Your task to perform on an android device: snooze an email in the gmail app Image 0: 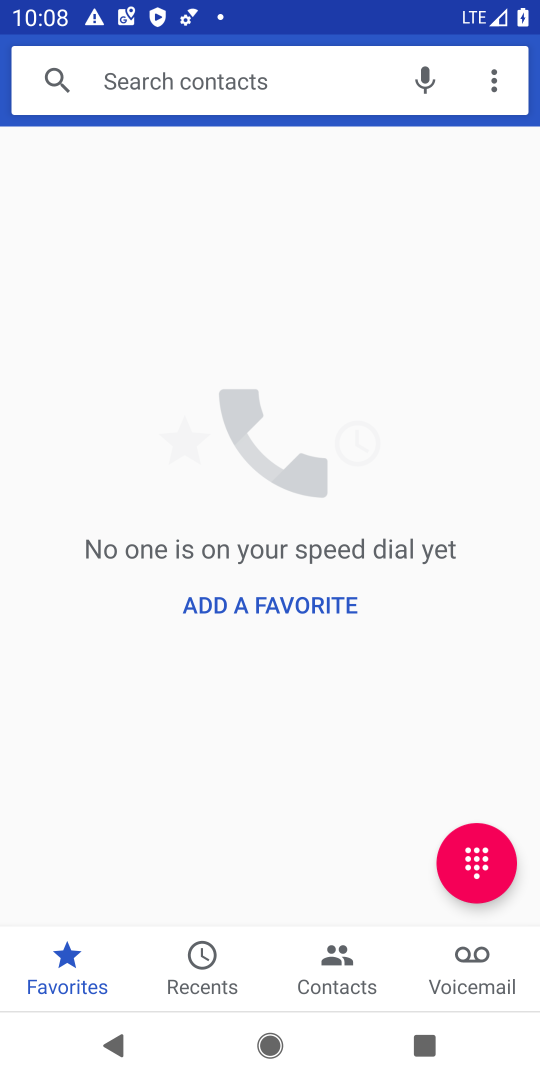
Step 0: press home button
Your task to perform on an android device: snooze an email in the gmail app Image 1: 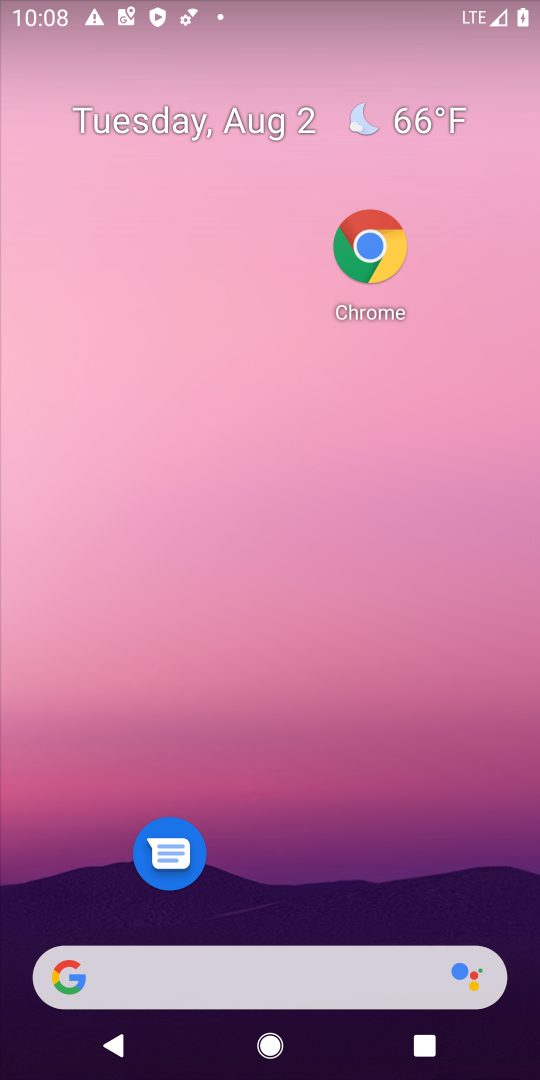
Step 1: drag from (337, 912) to (485, 512)
Your task to perform on an android device: snooze an email in the gmail app Image 2: 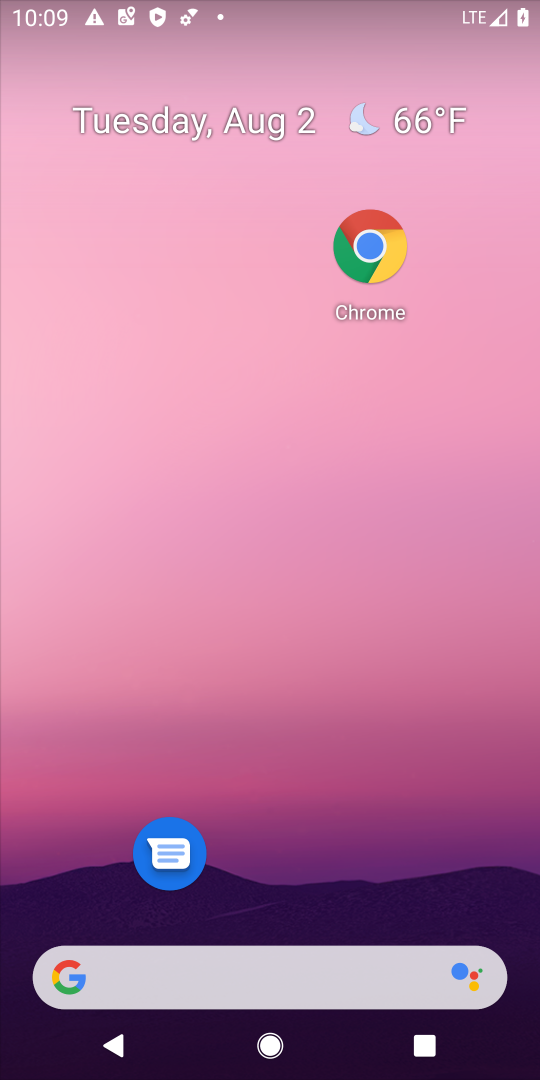
Step 2: drag from (228, 851) to (440, 49)
Your task to perform on an android device: snooze an email in the gmail app Image 3: 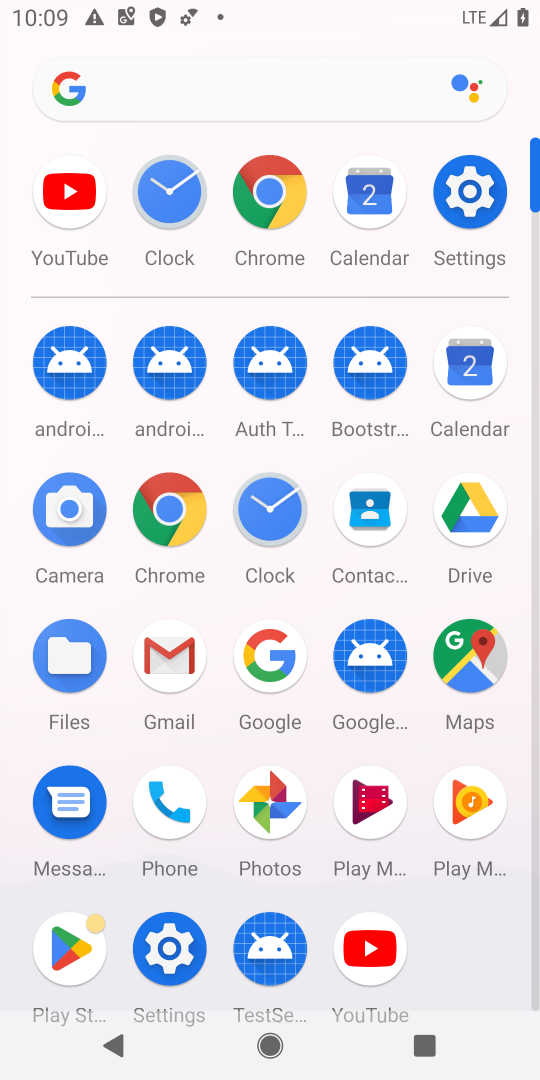
Step 3: click (167, 739)
Your task to perform on an android device: snooze an email in the gmail app Image 4: 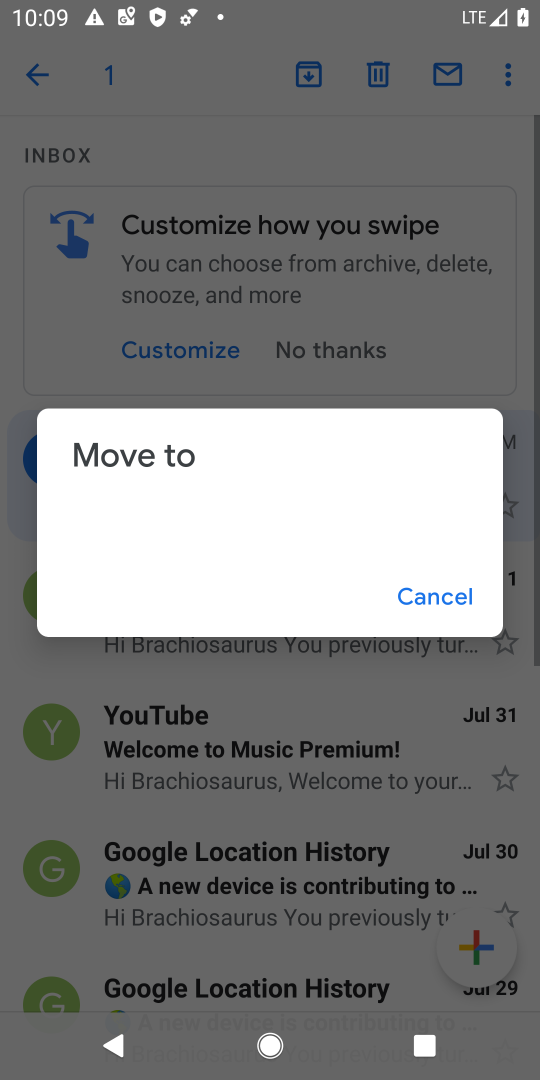
Step 4: click (439, 592)
Your task to perform on an android device: snooze an email in the gmail app Image 5: 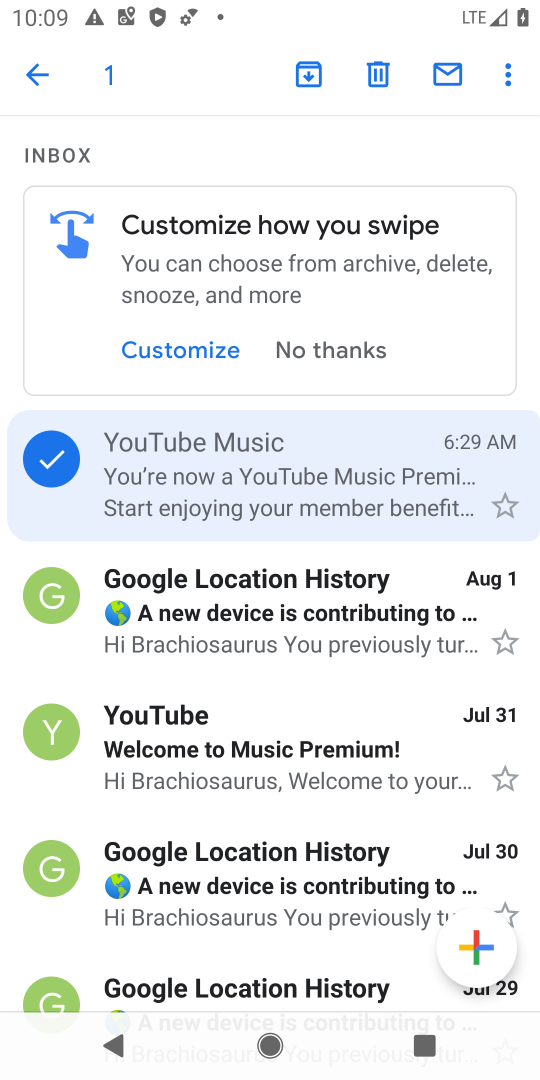
Step 5: click (28, 81)
Your task to perform on an android device: snooze an email in the gmail app Image 6: 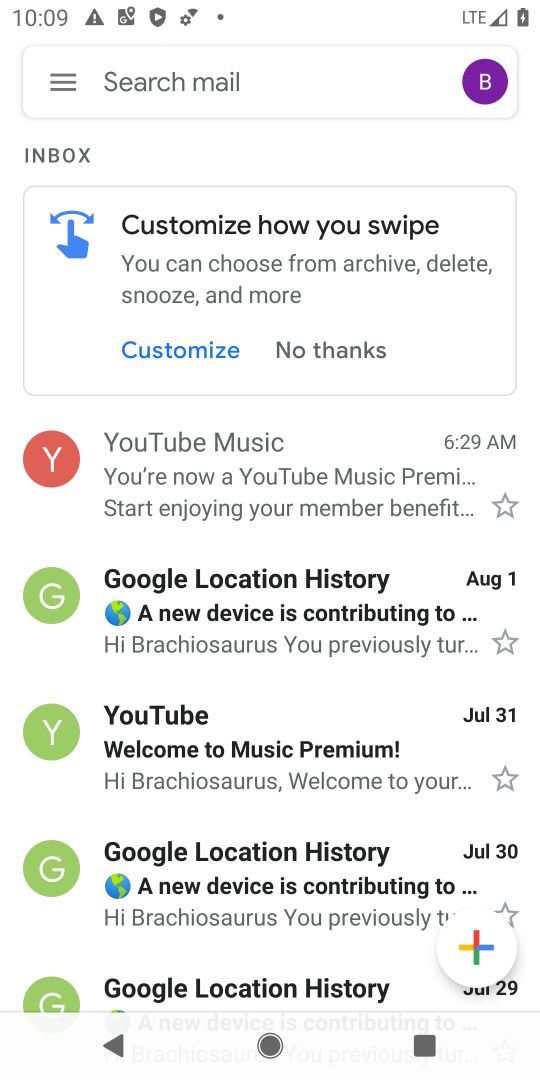
Step 6: click (228, 489)
Your task to perform on an android device: snooze an email in the gmail app Image 7: 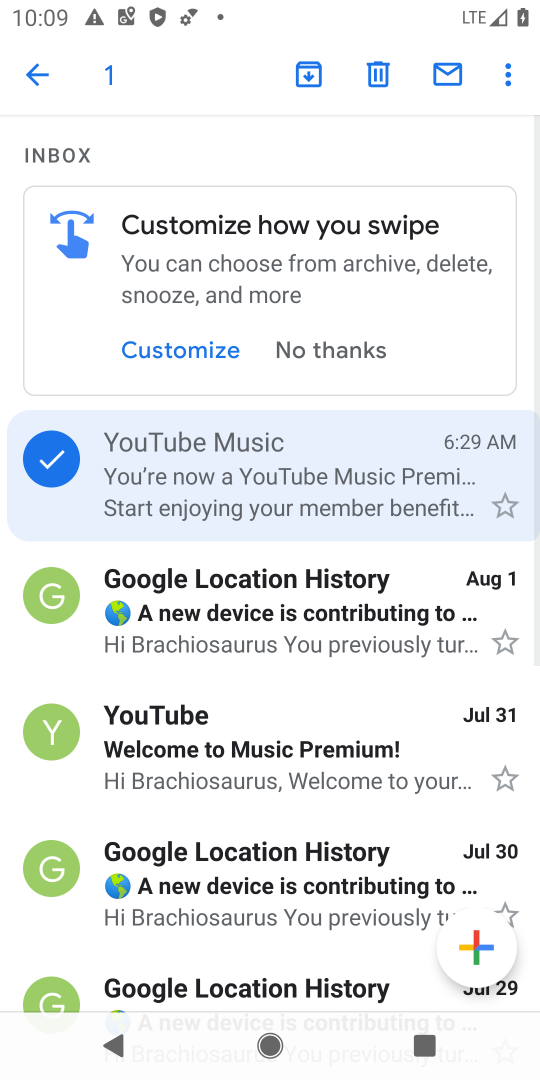
Step 7: click (507, 83)
Your task to perform on an android device: snooze an email in the gmail app Image 8: 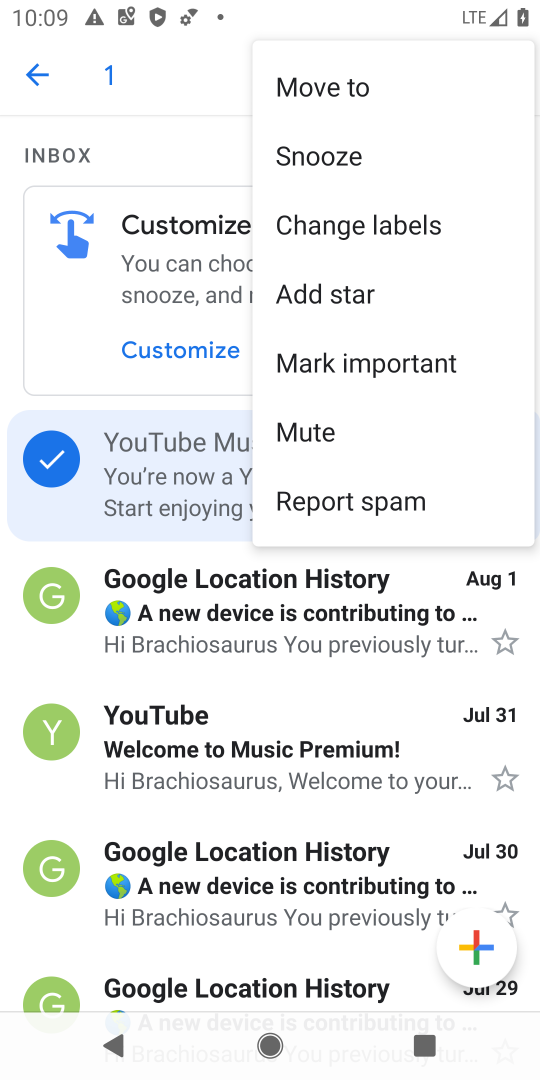
Step 8: click (342, 141)
Your task to perform on an android device: snooze an email in the gmail app Image 9: 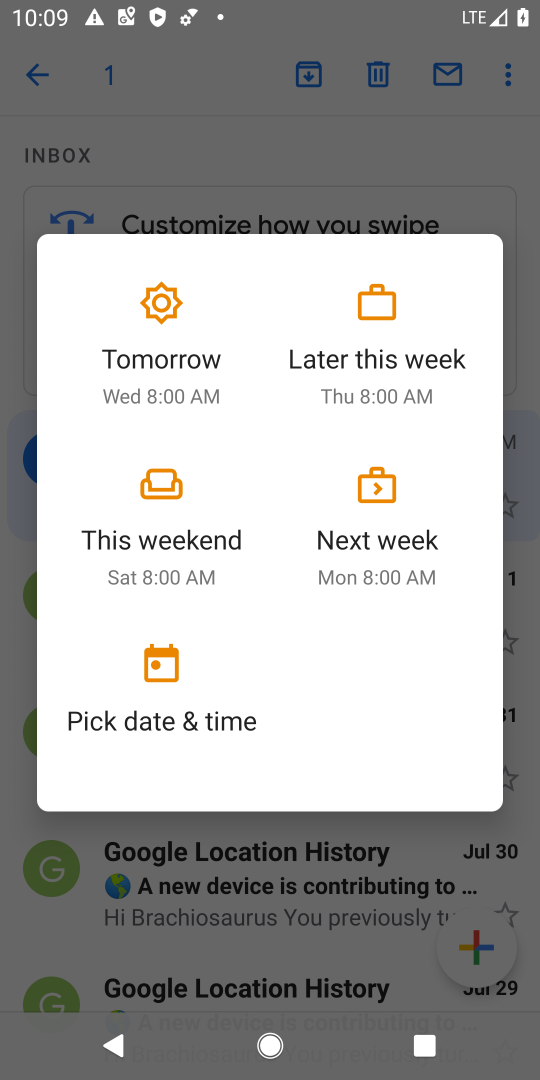
Step 9: click (388, 320)
Your task to perform on an android device: snooze an email in the gmail app Image 10: 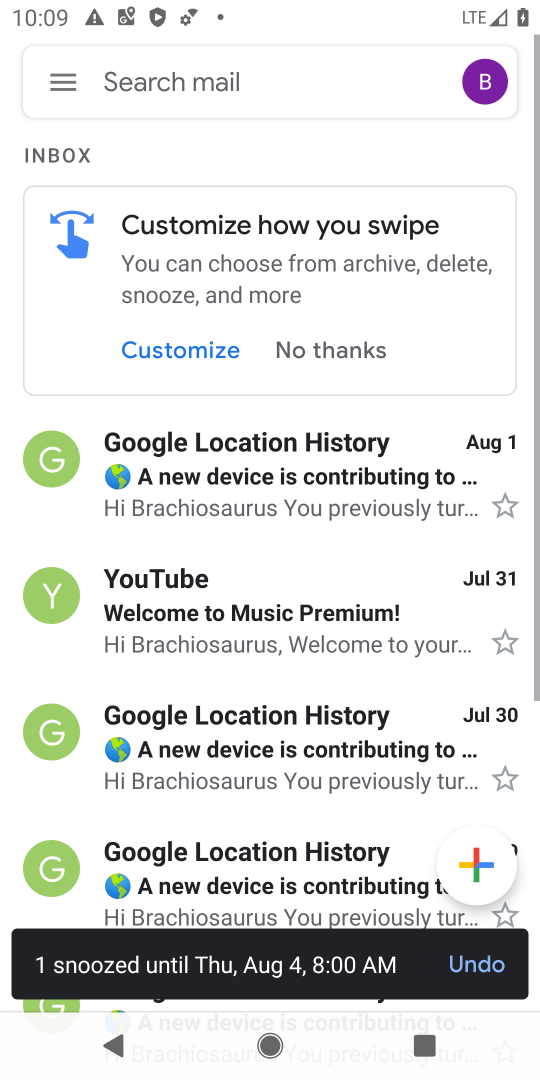
Step 10: task complete